Your task to perform on an android device: set an alarm Image 0: 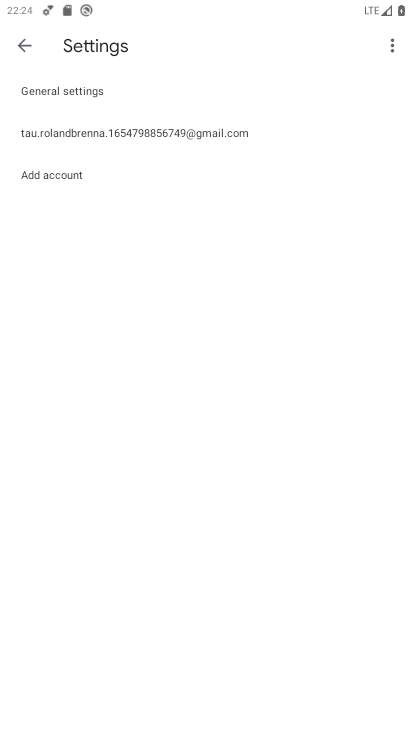
Step 0: press home button
Your task to perform on an android device: set an alarm Image 1: 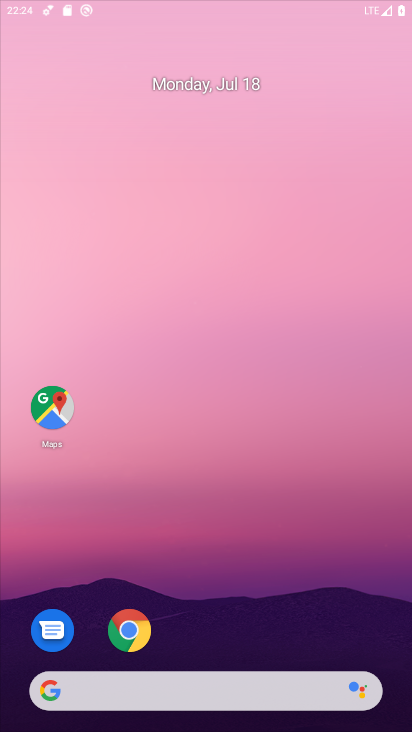
Step 1: drag from (188, 564) to (208, 101)
Your task to perform on an android device: set an alarm Image 2: 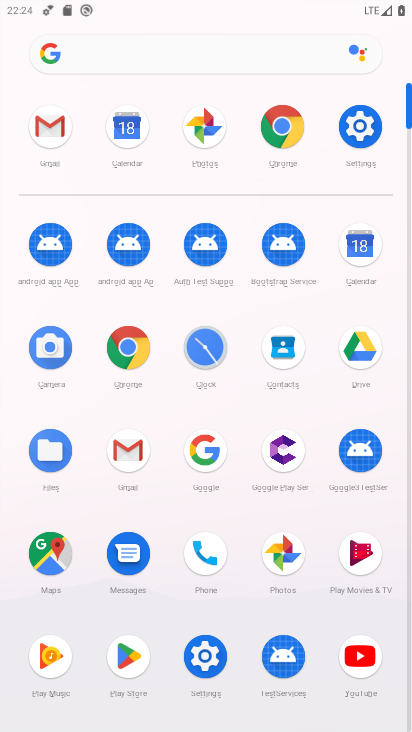
Step 2: click (210, 342)
Your task to perform on an android device: set an alarm Image 3: 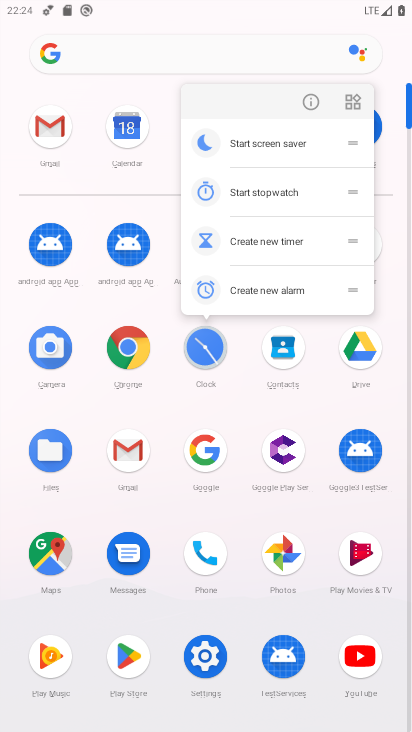
Step 3: click (194, 354)
Your task to perform on an android device: set an alarm Image 4: 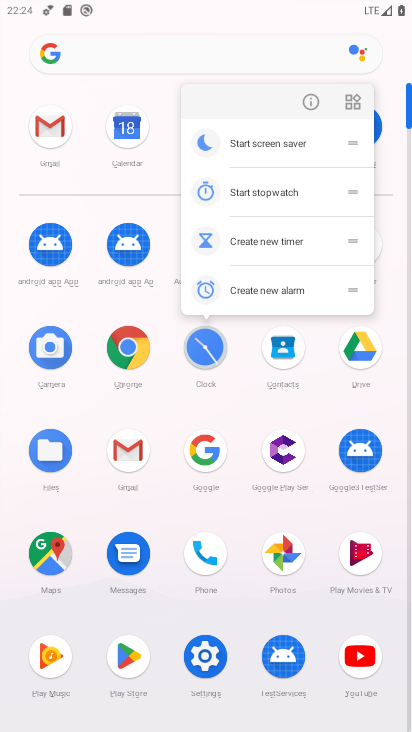
Step 4: click (201, 342)
Your task to perform on an android device: set an alarm Image 5: 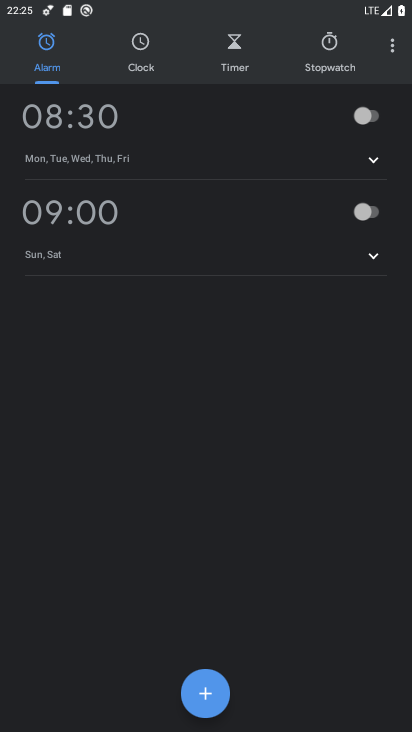
Step 5: click (379, 113)
Your task to perform on an android device: set an alarm Image 6: 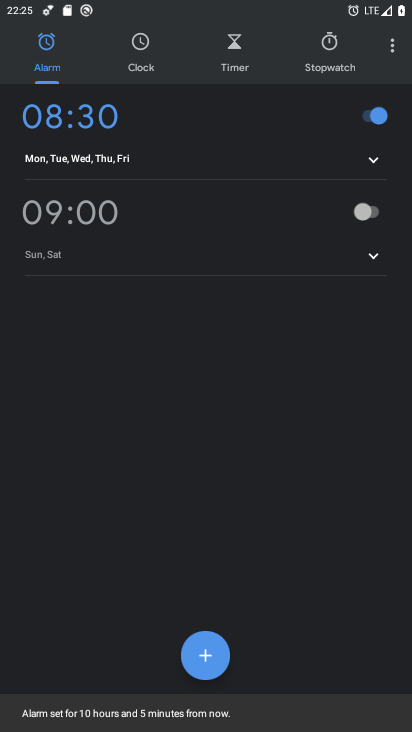
Step 6: task complete